Your task to perform on an android device: check the backup settings in the google photos Image 0: 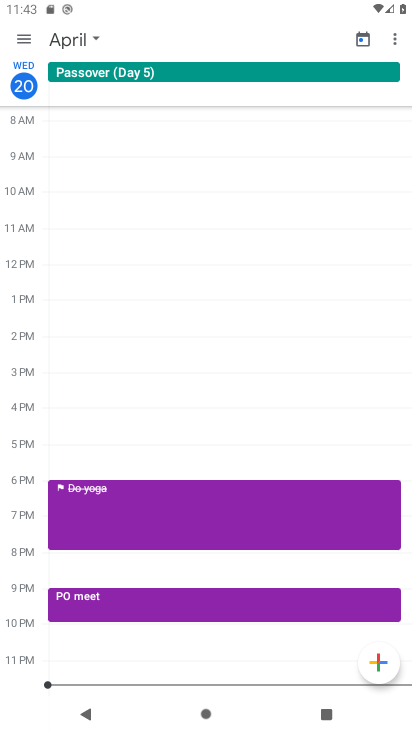
Step 0: press home button
Your task to perform on an android device: check the backup settings in the google photos Image 1: 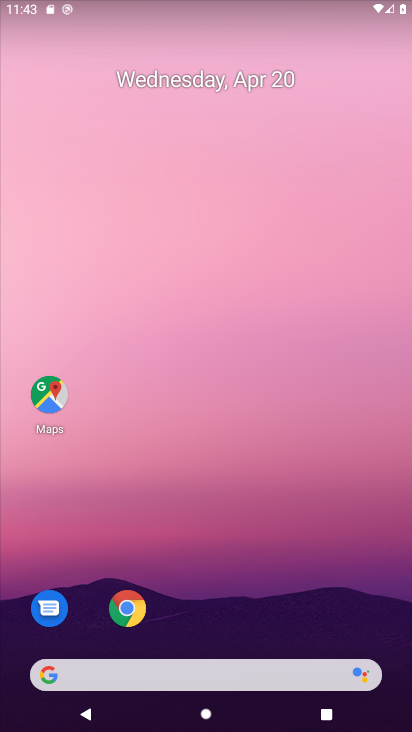
Step 1: drag from (186, 601) to (240, 61)
Your task to perform on an android device: check the backup settings in the google photos Image 2: 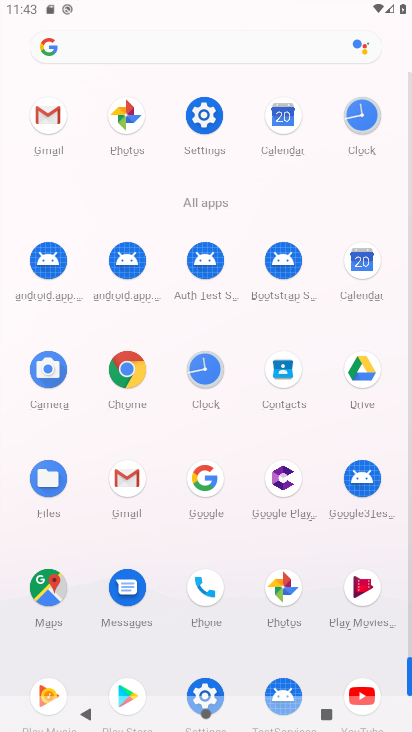
Step 2: click (127, 110)
Your task to perform on an android device: check the backup settings in the google photos Image 3: 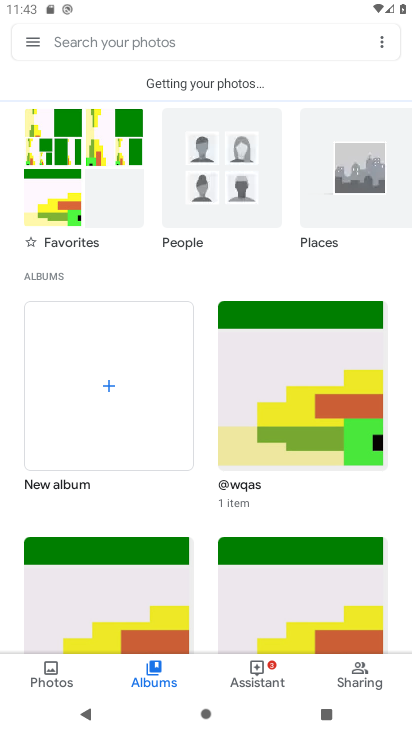
Step 3: click (33, 37)
Your task to perform on an android device: check the backup settings in the google photos Image 4: 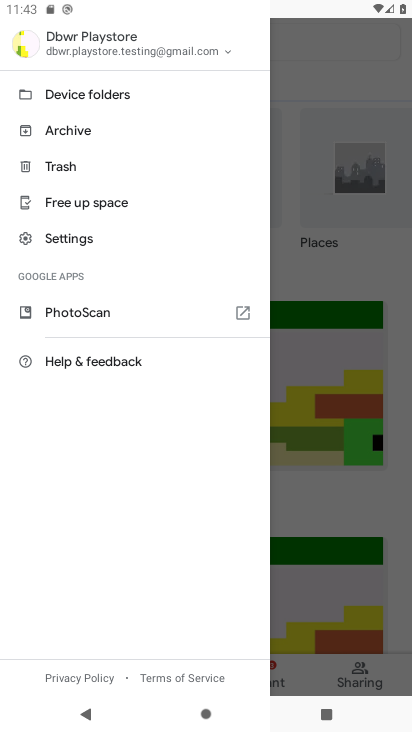
Step 4: click (76, 239)
Your task to perform on an android device: check the backup settings in the google photos Image 5: 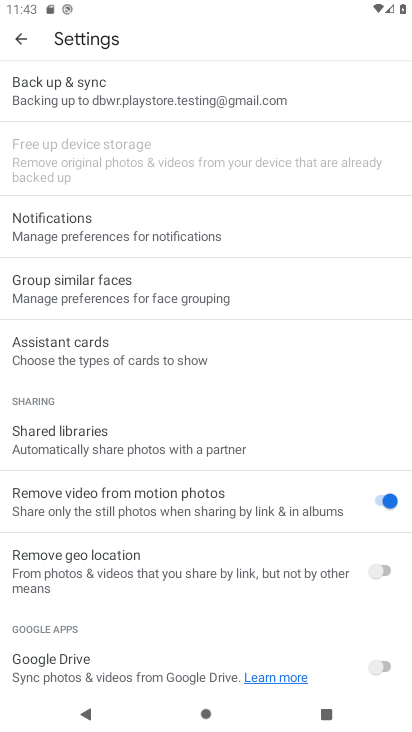
Step 5: click (145, 92)
Your task to perform on an android device: check the backup settings in the google photos Image 6: 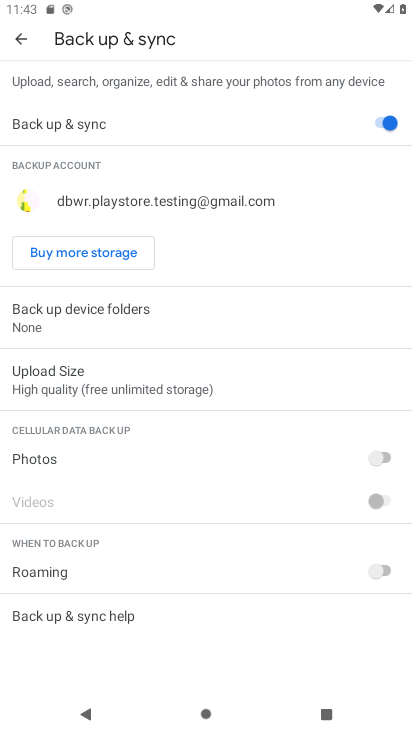
Step 6: task complete